Your task to perform on an android device: Show me popular videos on Youtube Image 0: 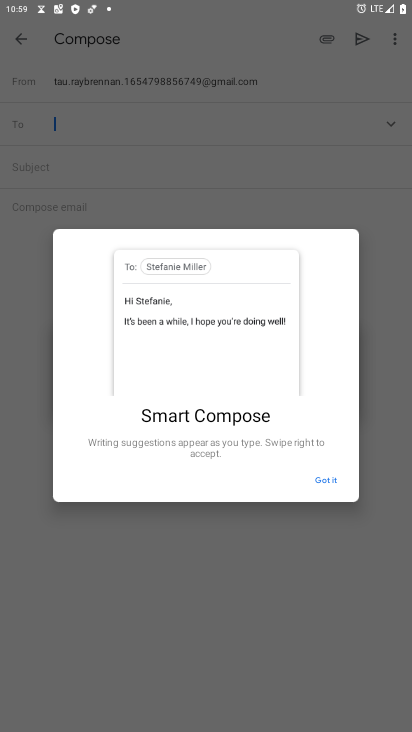
Step 0: drag from (135, 645) to (298, 170)
Your task to perform on an android device: Show me popular videos on Youtube Image 1: 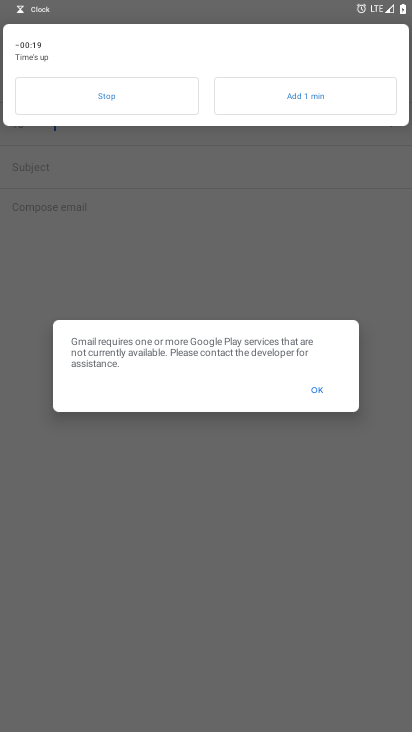
Step 1: click (88, 86)
Your task to perform on an android device: Show me popular videos on Youtube Image 2: 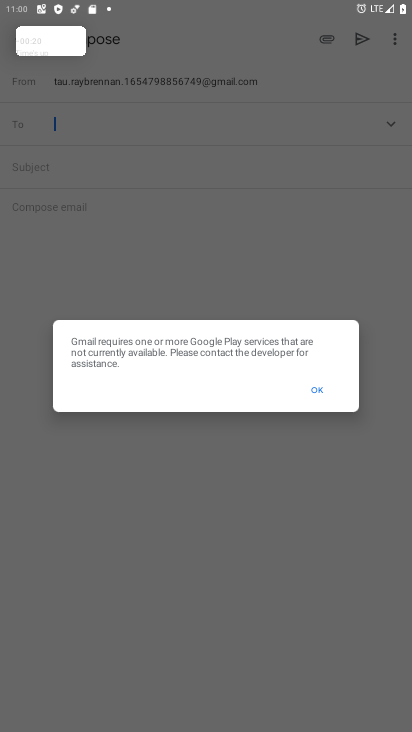
Step 2: press home button
Your task to perform on an android device: Show me popular videos on Youtube Image 3: 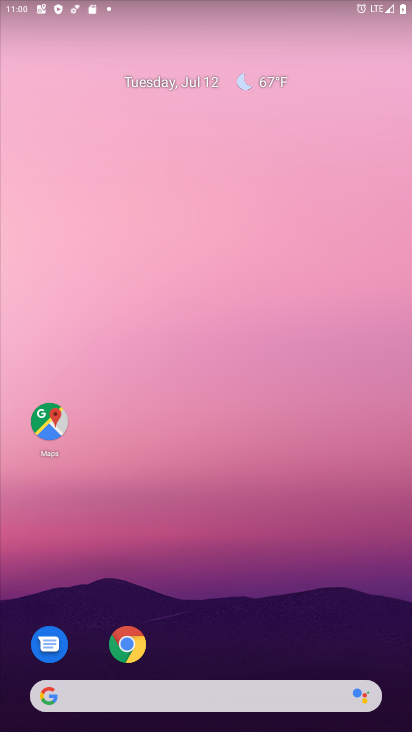
Step 3: drag from (203, 639) to (230, 217)
Your task to perform on an android device: Show me popular videos on Youtube Image 4: 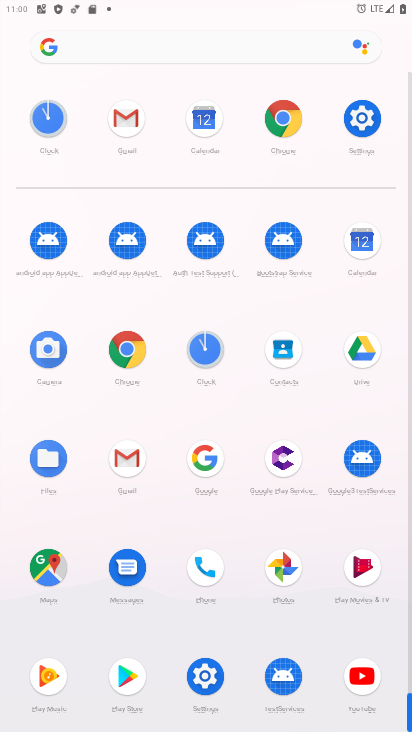
Step 4: click (356, 682)
Your task to perform on an android device: Show me popular videos on Youtube Image 5: 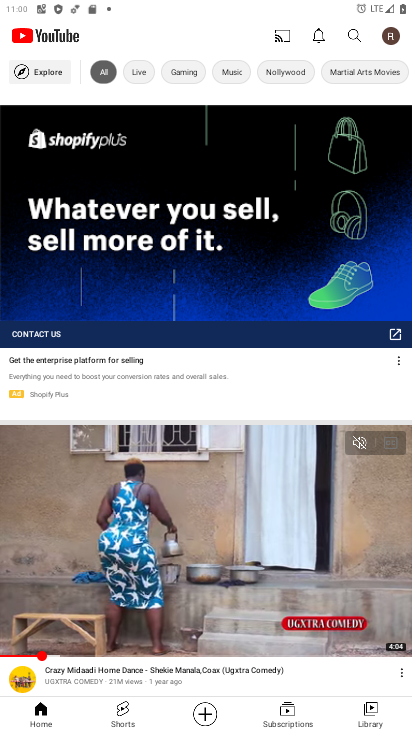
Step 5: task complete